Your task to perform on an android device: turn off location Image 0: 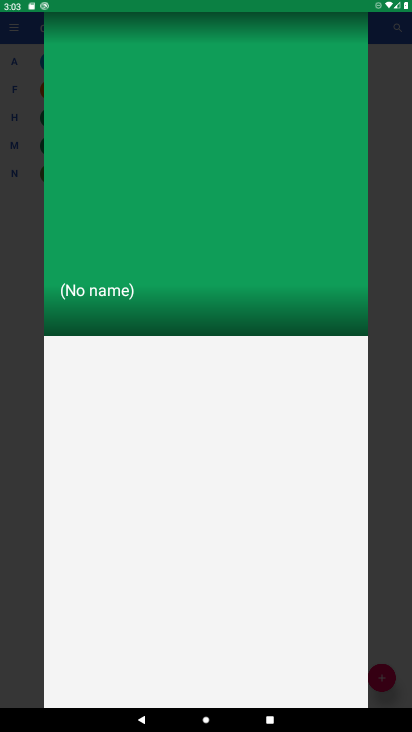
Step 0: drag from (274, 632) to (250, 484)
Your task to perform on an android device: turn off location Image 1: 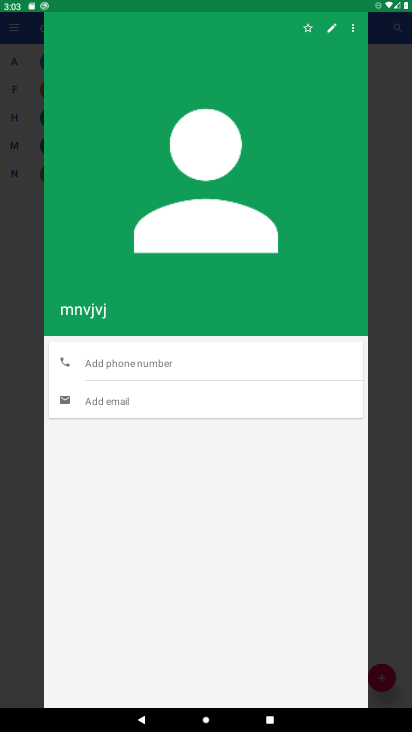
Step 1: press home button
Your task to perform on an android device: turn off location Image 2: 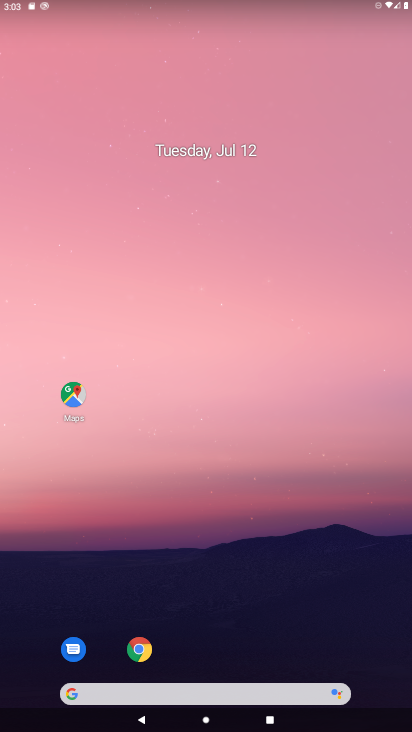
Step 2: drag from (291, 636) to (270, 164)
Your task to perform on an android device: turn off location Image 3: 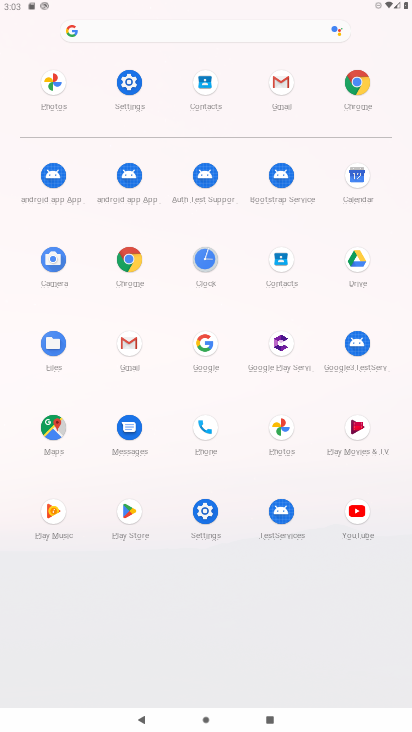
Step 3: click (144, 97)
Your task to perform on an android device: turn off location Image 4: 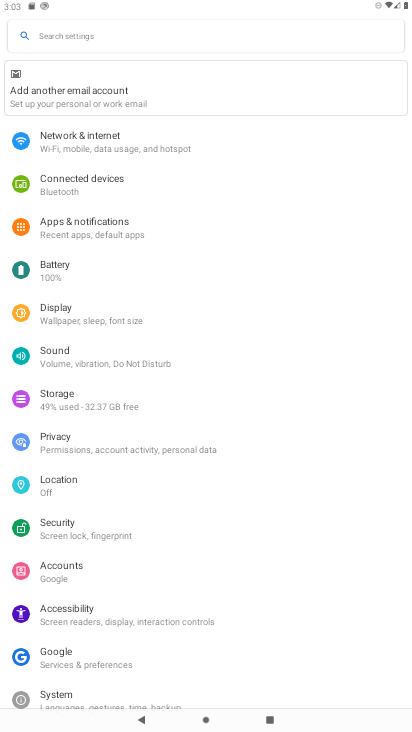
Step 4: click (109, 487)
Your task to perform on an android device: turn off location Image 5: 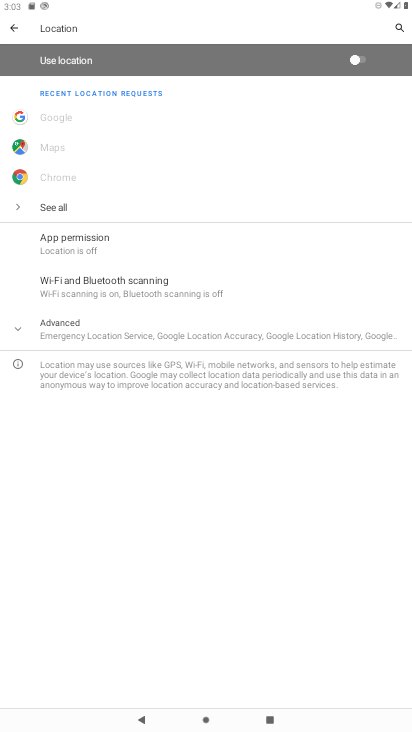
Step 5: click (140, 333)
Your task to perform on an android device: turn off location Image 6: 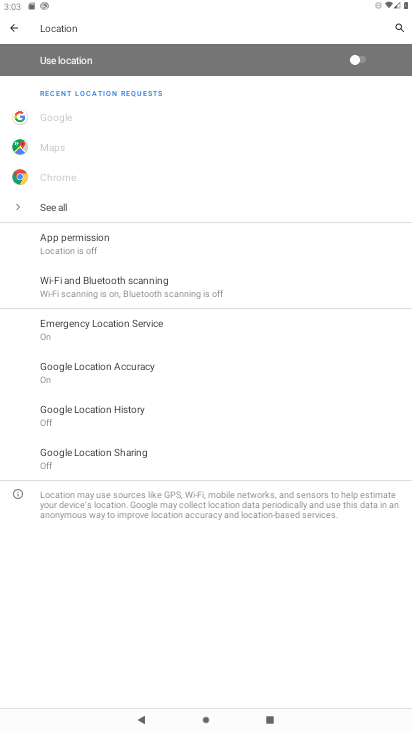
Step 6: task complete